Your task to perform on an android device: Open Google Image 0: 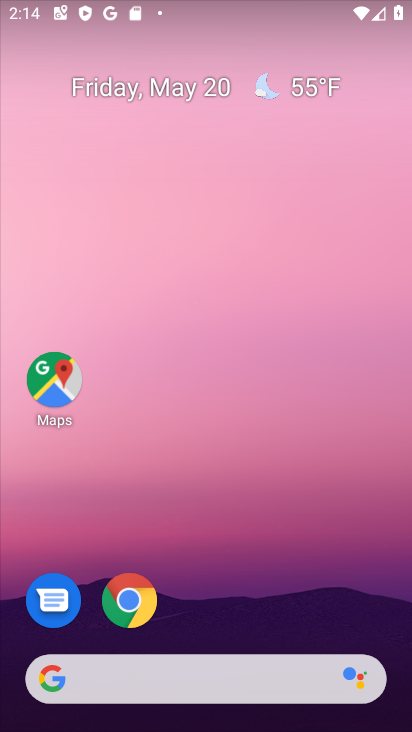
Step 0: drag from (228, 588) to (210, 48)
Your task to perform on an android device: Open Google Image 1: 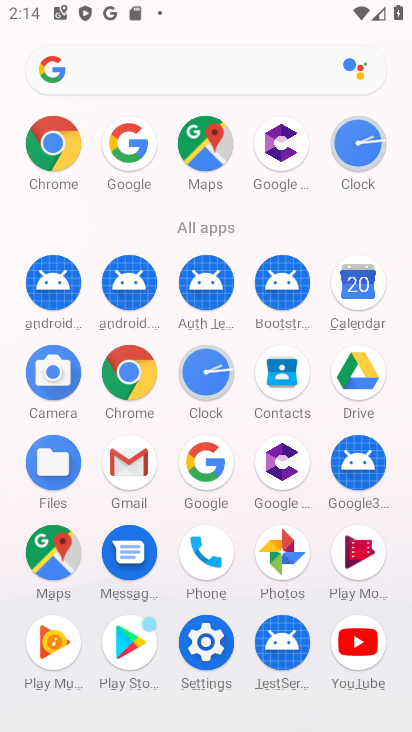
Step 1: drag from (243, 305) to (250, 168)
Your task to perform on an android device: Open Google Image 2: 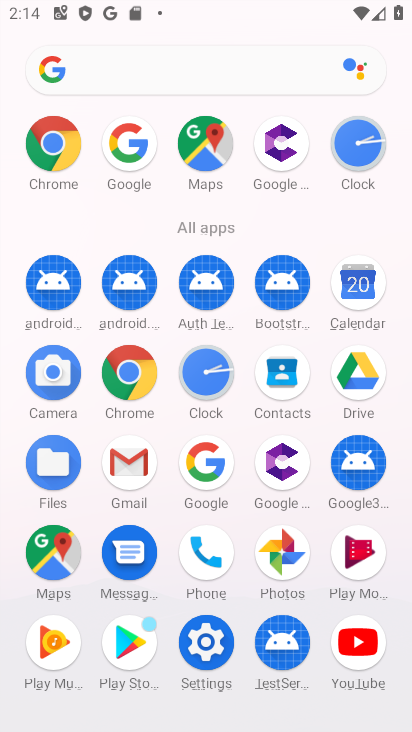
Step 2: click (198, 483)
Your task to perform on an android device: Open Google Image 3: 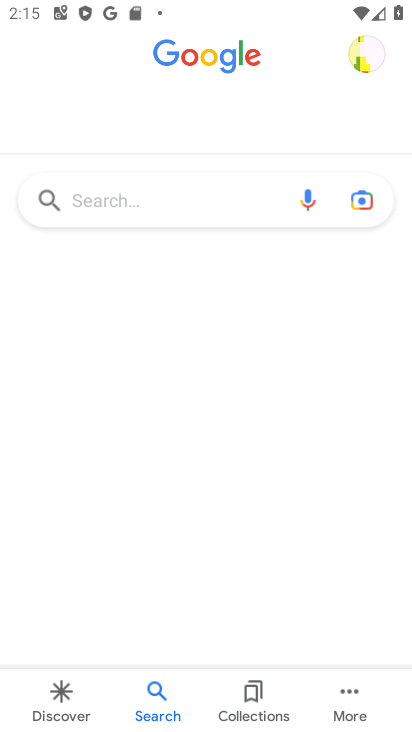
Step 3: task complete